Your task to perform on an android device: toggle airplane mode Image 0: 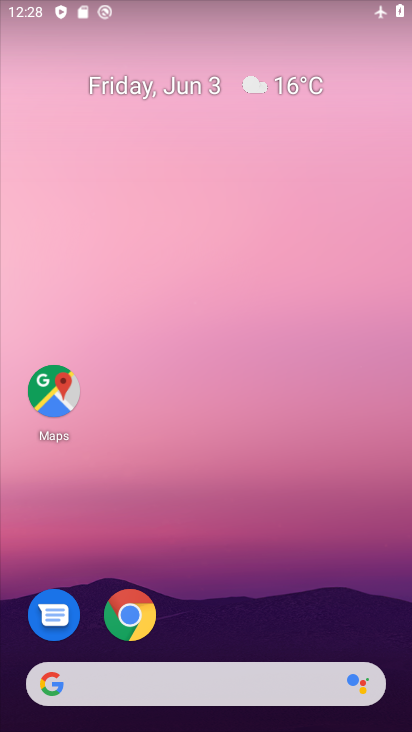
Step 0: drag from (290, 612) to (211, 344)
Your task to perform on an android device: toggle airplane mode Image 1: 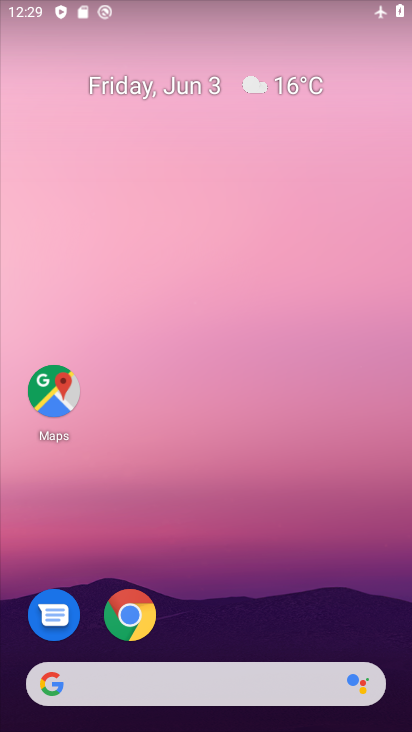
Step 1: drag from (205, 382) to (208, 333)
Your task to perform on an android device: toggle airplane mode Image 2: 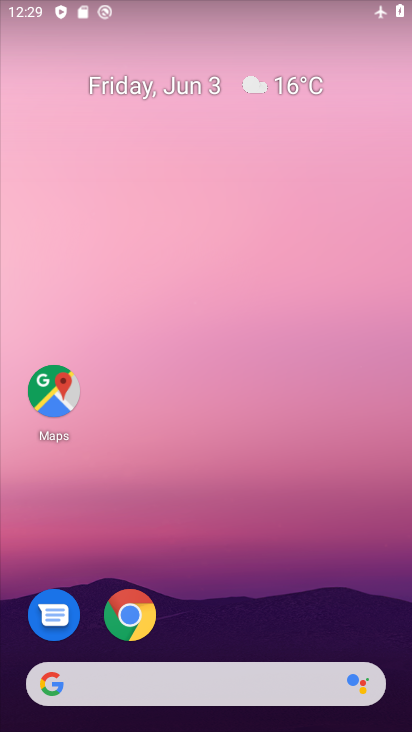
Step 2: drag from (180, 624) to (208, 268)
Your task to perform on an android device: toggle airplane mode Image 3: 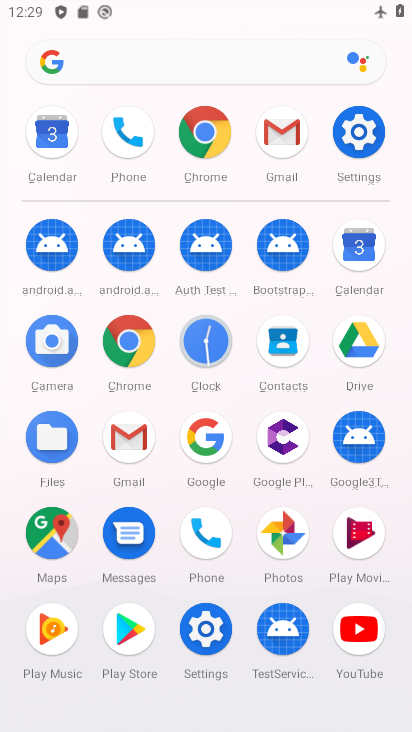
Step 3: click (356, 130)
Your task to perform on an android device: toggle airplane mode Image 4: 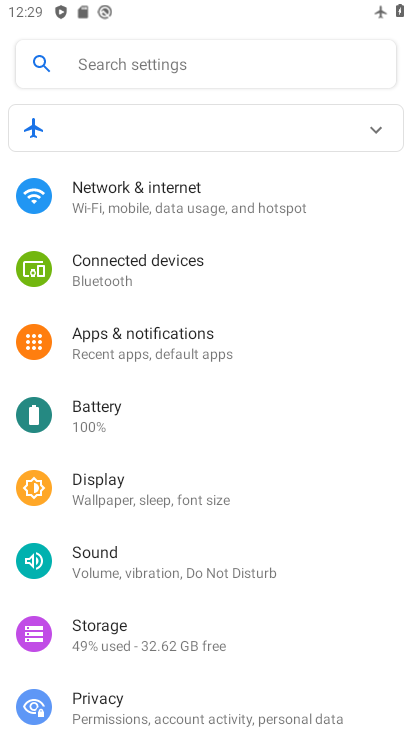
Step 4: click (169, 195)
Your task to perform on an android device: toggle airplane mode Image 5: 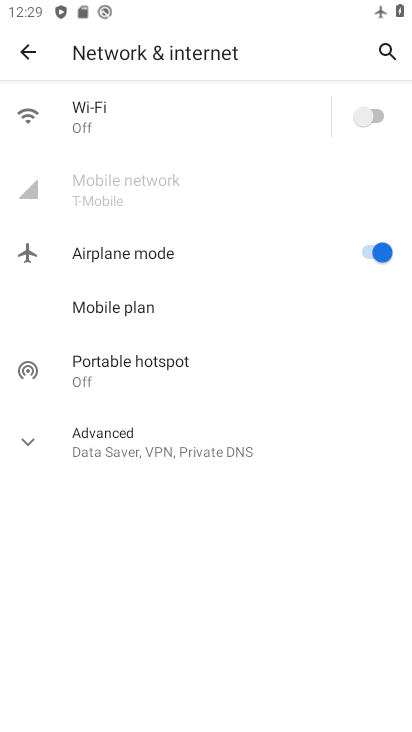
Step 5: click (366, 259)
Your task to perform on an android device: toggle airplane mode Image 6: 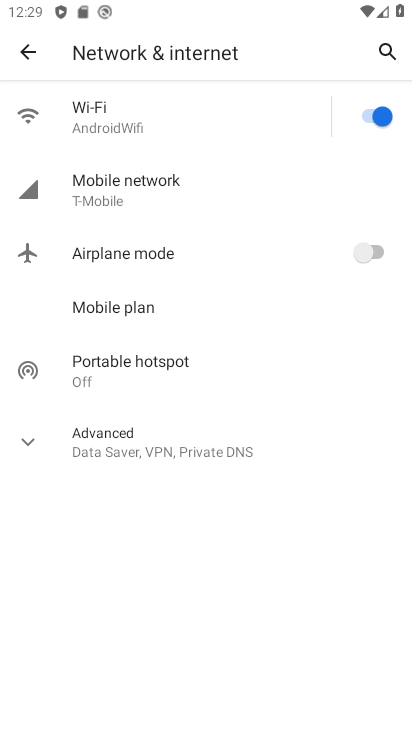
Step 6: task complete